Your task to perform on an android device: Search for Italian restaurants on Maps Image 0: 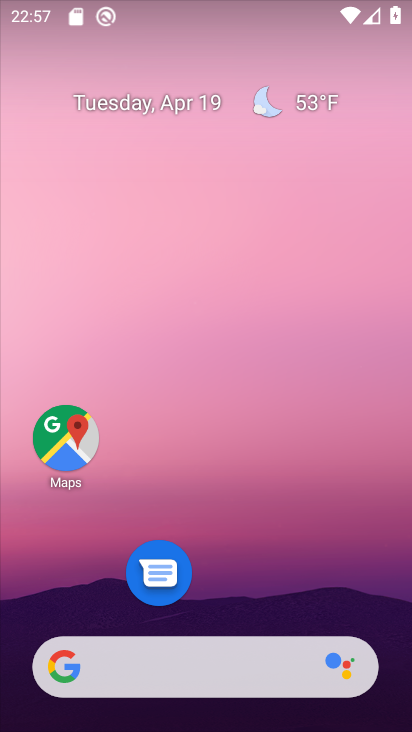
Step 0: click (63, 431)
Your task to perform on an android device: Search for Italian restaurants on Maps Image 1: 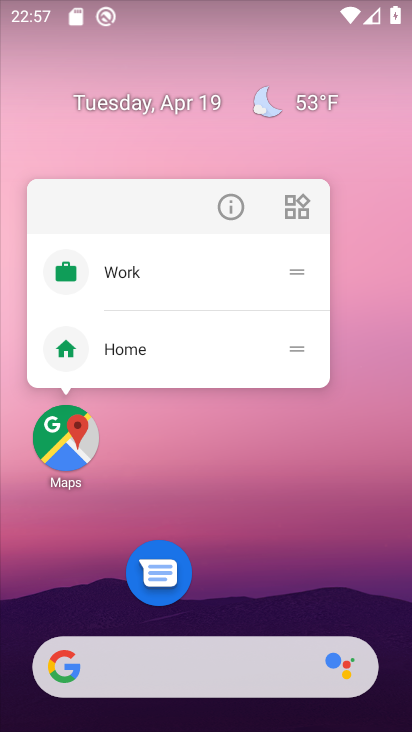
Step 1: click (66, 434)
Your task to perform on an android device: Search for Italian restaurants on Maps Image 2: 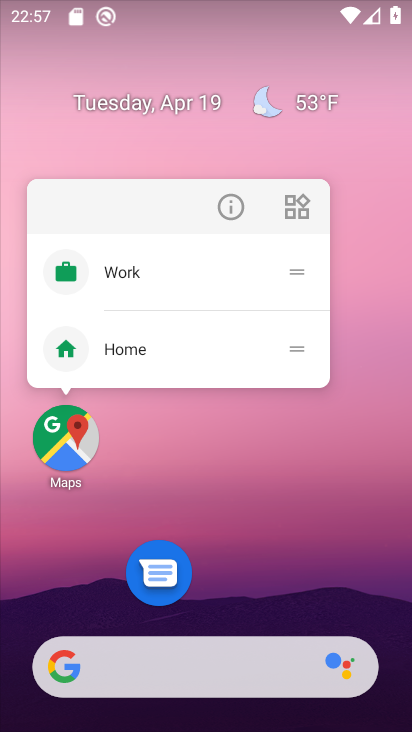
Step 2: click (231, 452)
Your task to perform on an android device: Search for Italian restaurants on Maps Image 3: 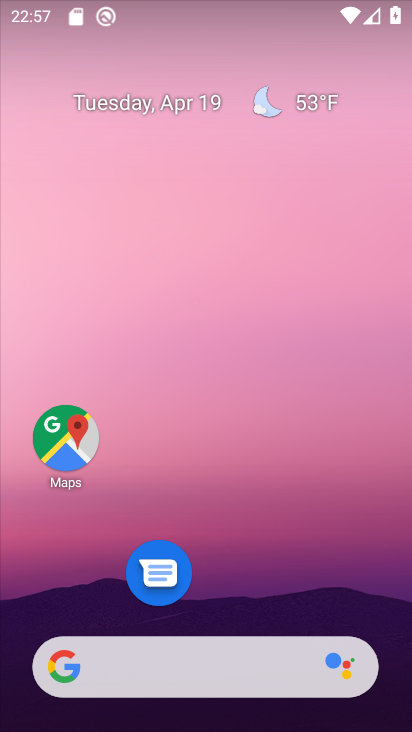
Step 3: click (283, 521)
Your task to perform on an android device: Search for Italian restaurants on Maps Image 4: 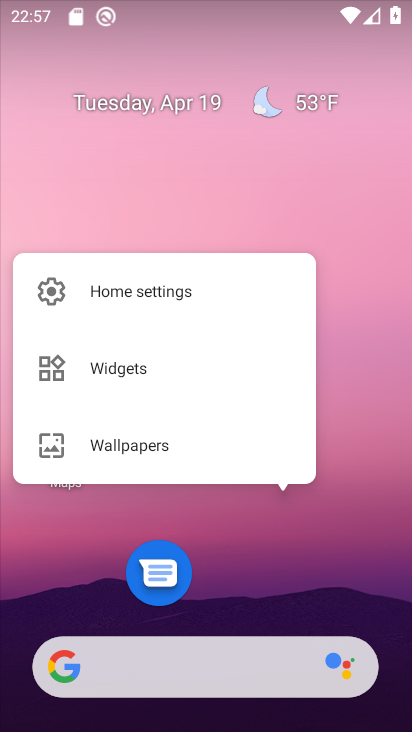
Step 4: click (349, 166)
Your task to perform on an android device: Search for Italian restaurants on Maps Image 5: 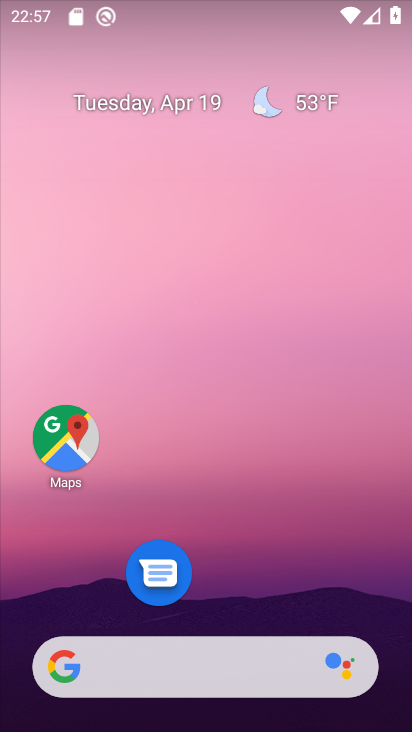
Step 5: click (67, 433)
Your task to perform on an android device: Search for Italian restaurants on Maps Image 6: 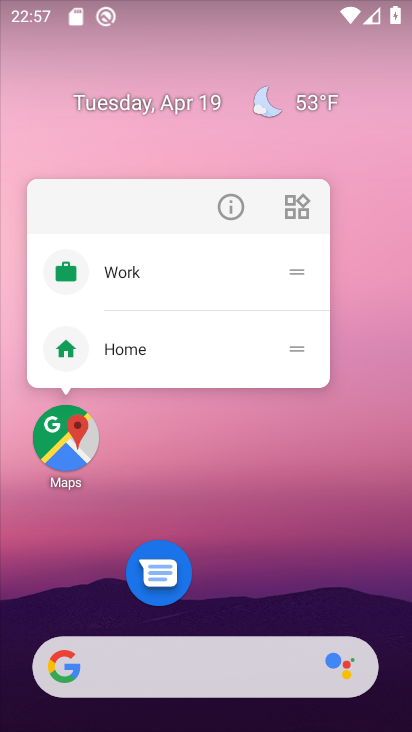
Step 6: click (68, 432)
Your task to perform on an android device: Search for Italian restaurants on Maps Image 7: 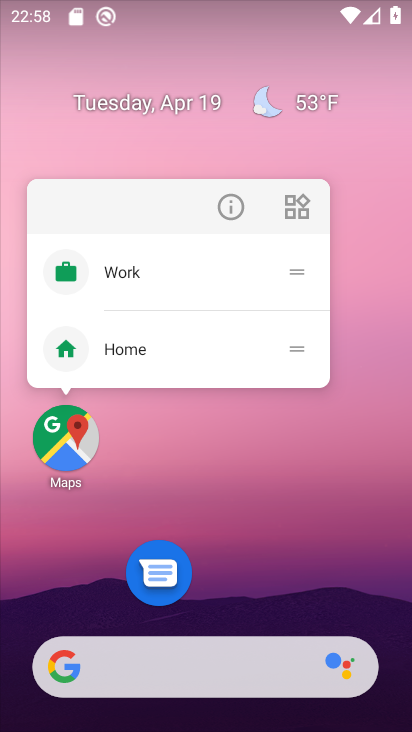
Step 7: click (66, 439)
Your task to perform on an android device: Search for Italian restaurants on Maps Image 8: 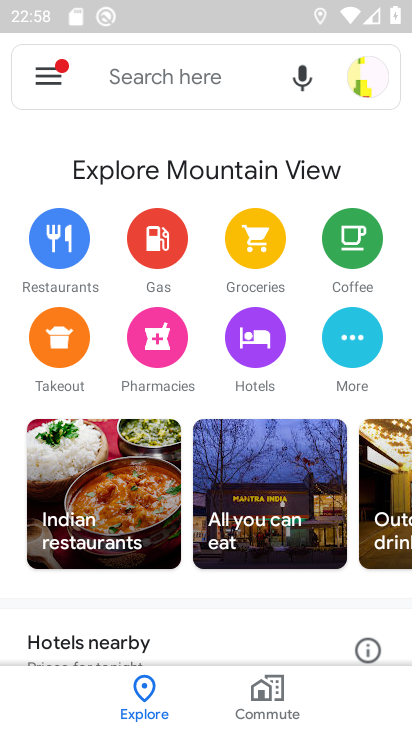
Step 8: click (174, 68)
Your task to perform on an android device: Search for Italian restaurants on Maps Image 9: 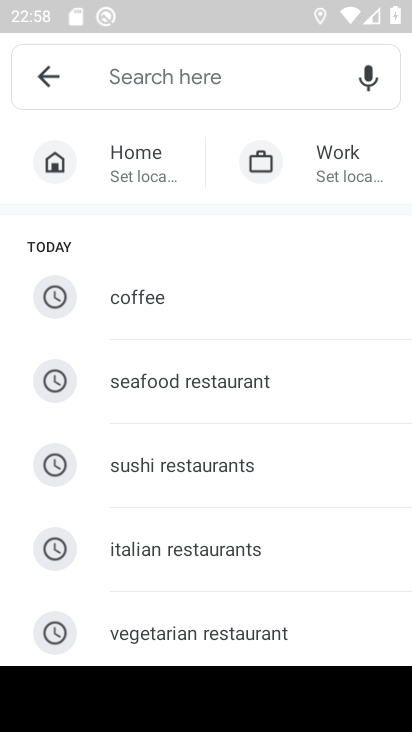
Step 9: click (199, 541)
Your task to perform on an android device: Search for Italian restaurants on Maps Image 10: 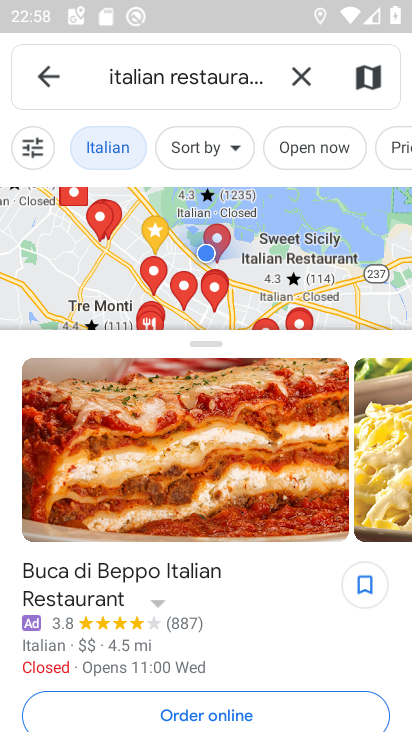
Step 10: task complete